Your task to perform on an android device: Open Google Maps Image 0: 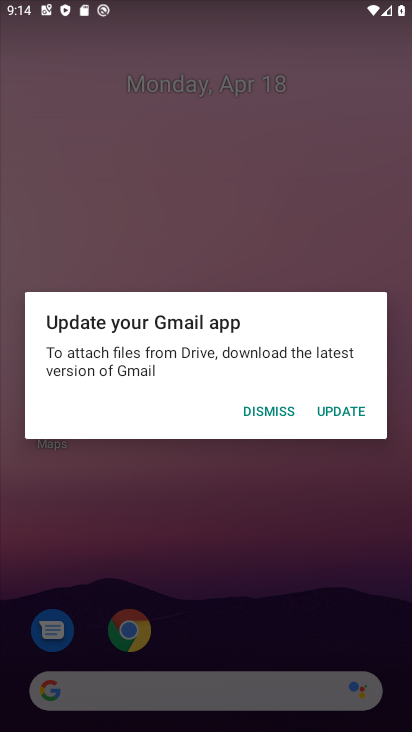
Step 0: press home button
Your task to perform on an android device: Open Google Maps Image 1: 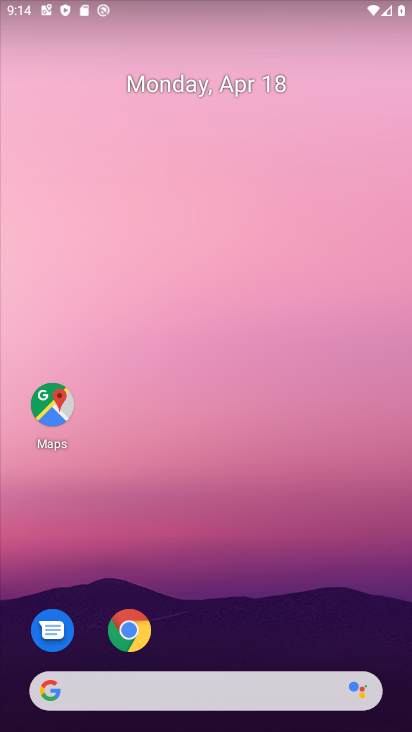
Step 1: click (52, 405)
Your task to perform on an android device: Open Google Maps Image 2: 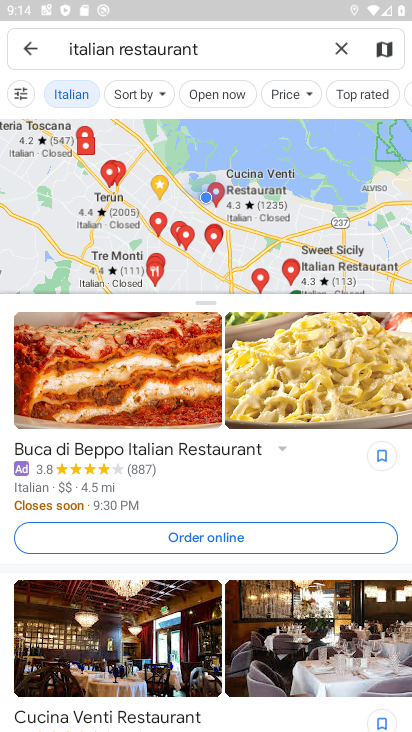
Step 2: task complete